Your task to perform on an android device: change the clock display to analog Image 0: 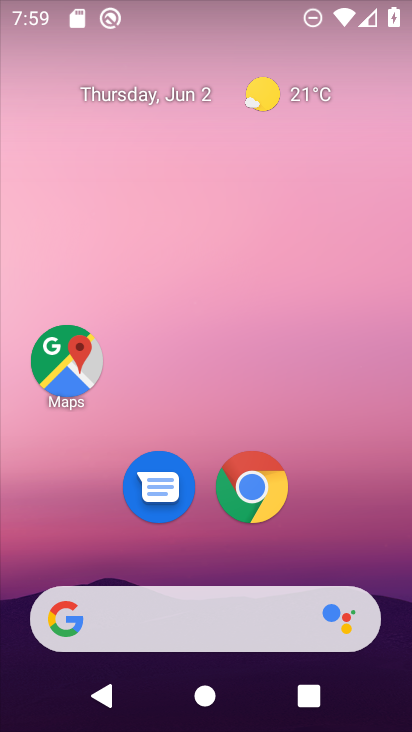
Step 0: drag from (218, 577) to (268, 220)
Your task to perform on an android device: change the clock display to analog Image 1: 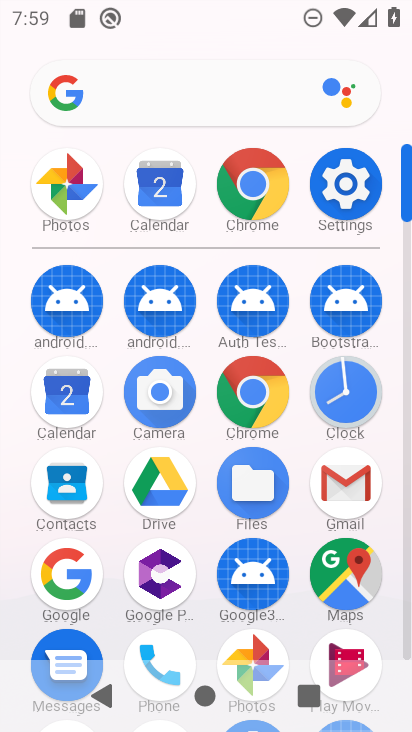
Step 1: click (349, 399)
Your task to perform on an android device: change the clock display to analog Image 2: 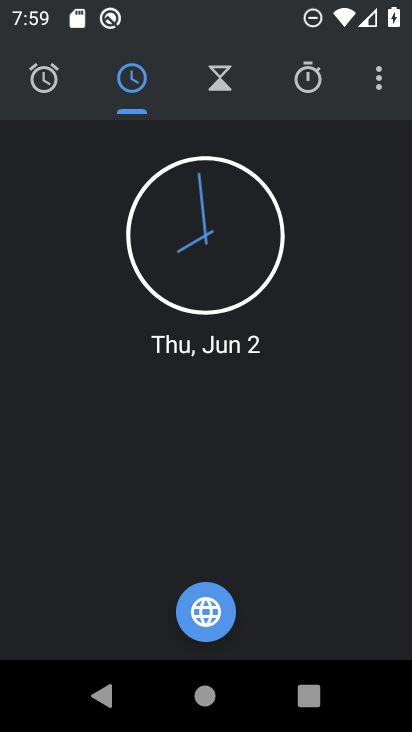
Step 2: click (381, 86)
Your task to perform on an android device: change the clock display to analog Image 3: 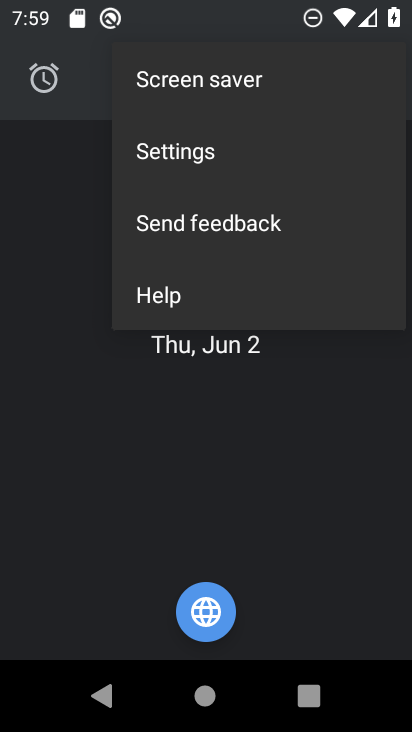
Step 3: click (204, 154)
Your task to perform on an android device: change the clock display to analog Image 4: 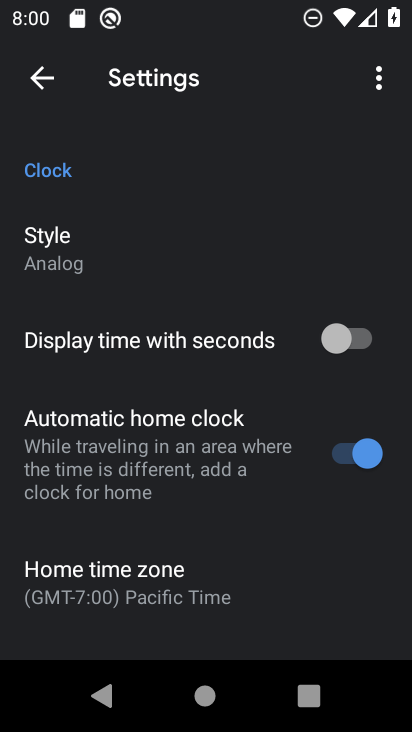
Step 4: click (70, 250)
Your task to perform on an android device: change the clock display to analog Image 5: 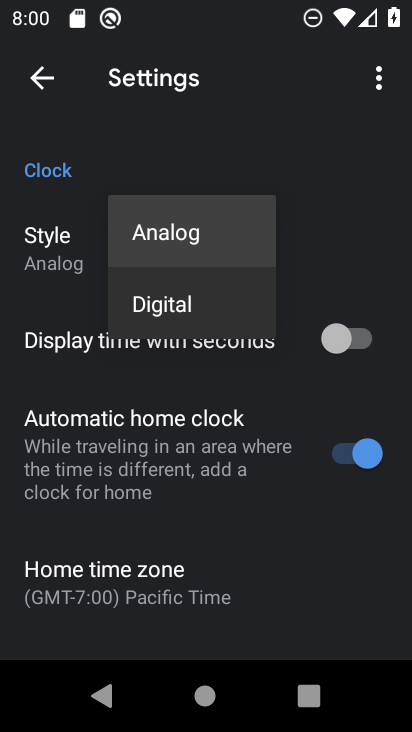
Step 5: task complete